Your task to perform on an android device: turn on priority inbox in the gmail app Image 0: 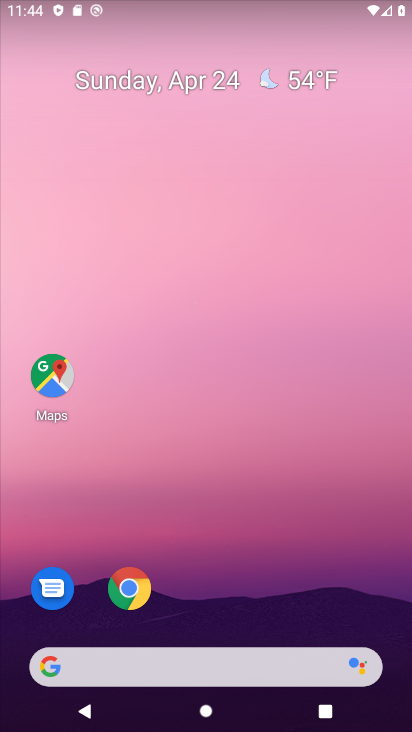
Step 0: drag from (182, 636) to (247, 31)
Your task to perform on an android device: turn on priority inbox in the gmail app Image 1: 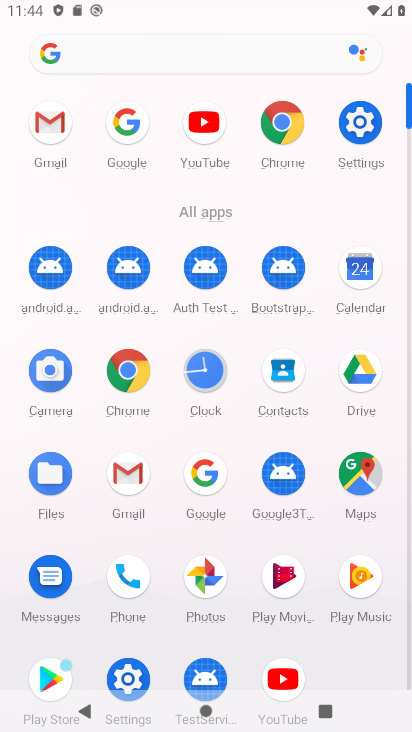
Step 1: click (127, 499)
Your task to perform on an android device: turn on priority inbox in the gmail app Image 2: 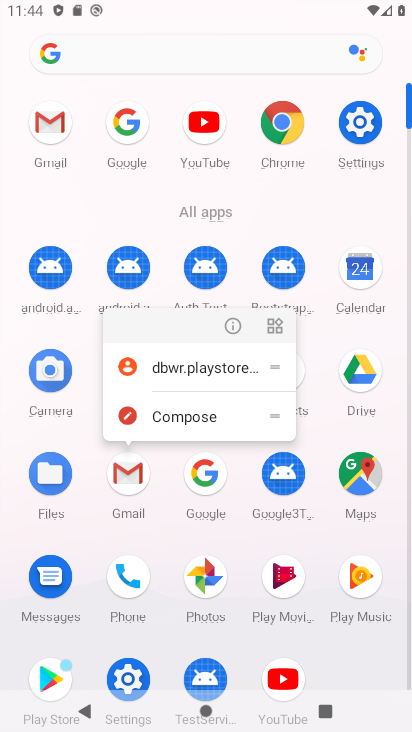
Step 2: click (137, 479)
Your task to perform on an android device: turn on priority inbox in the gmail app Image 3: 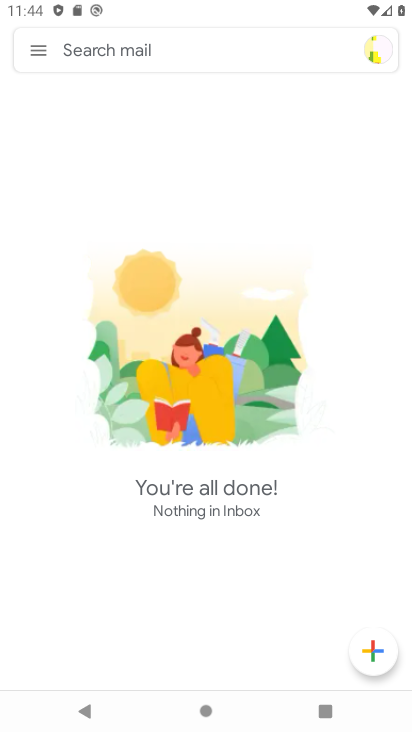
Step 3: click (47, 40)
Your task to perform on an android device: turn on priority inbox in the gmail app Image 4: 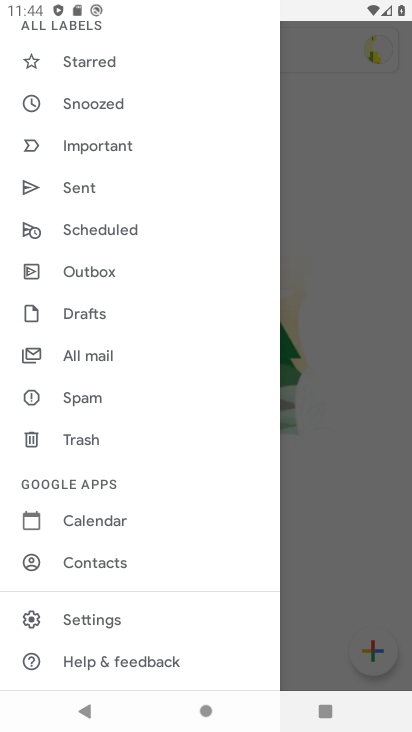
Step 4: drag from (97, 496) to (76, 193)
Your task to perform on an android device: turn on priority inbox in the gmail app Image 5: 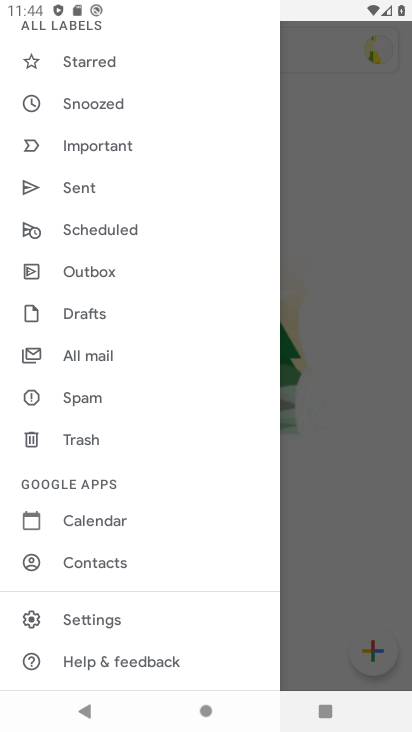
Step 5: click (72, 621)
Your task to perform on an android device: turn on priority inbox in the gmail app Image 6: 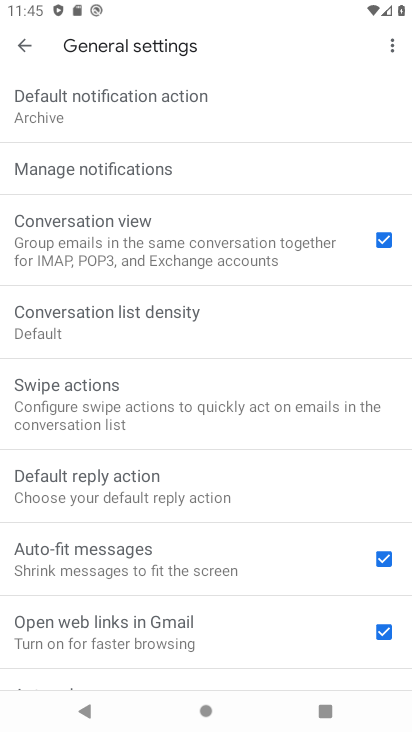
Step 6: drag from (238, 554) to (221, 361)
Your task to perform on an android device: turn on priority inbox in the gmail app Image 7: 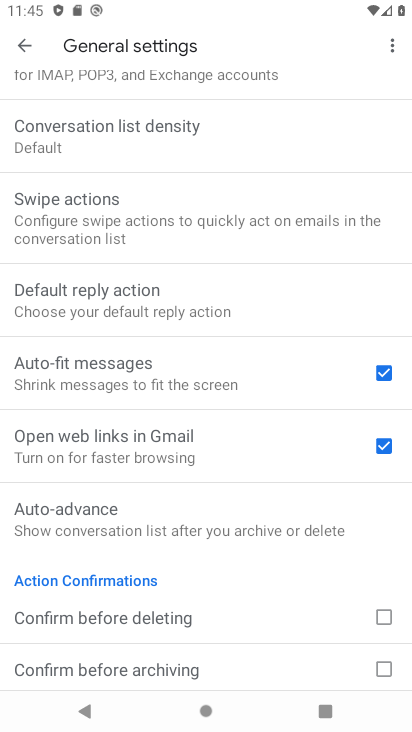
Step 7: click (19, 55)
Your task to perform on an android device: turn on priority inbox in the gmail app Image 8: 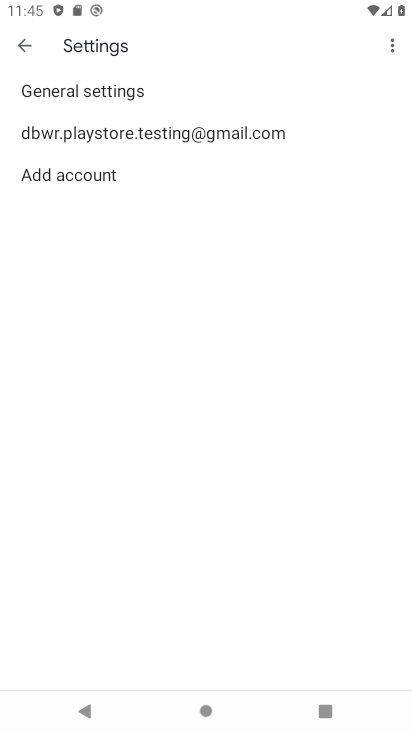
Step 8: click (65, 128)
Your task to perform on an android device: turn on priority inbox in the gmail app Image 9: 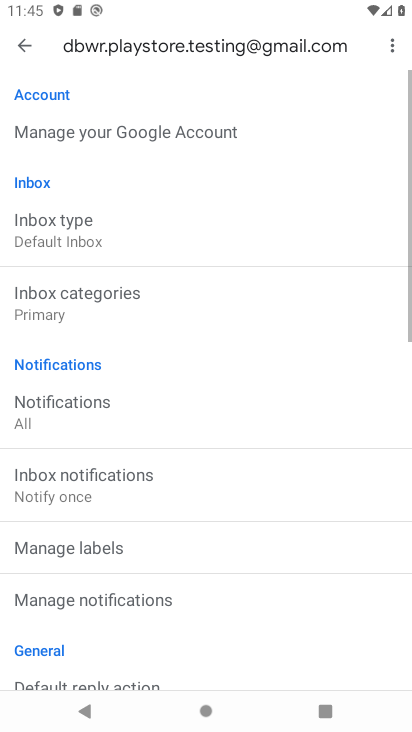
Step 9: click (73, 228)
Your task to perform on an android device: turn on priority inbox in the gmail app Image 10: 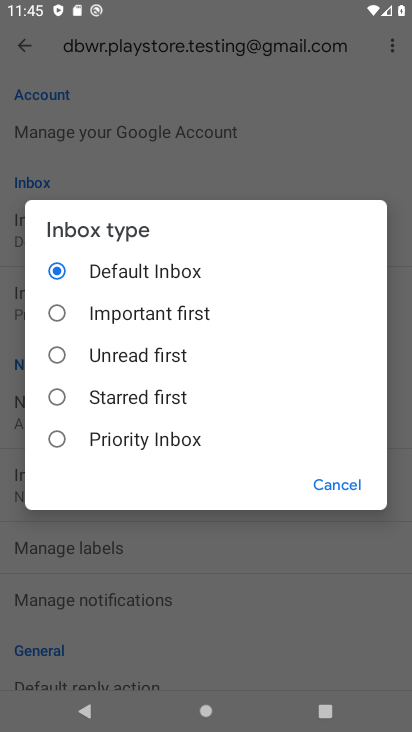
Step 10: click (53, 438)
Your task to perform on an android device: turn on priority inbox in the gmail app Image 11: 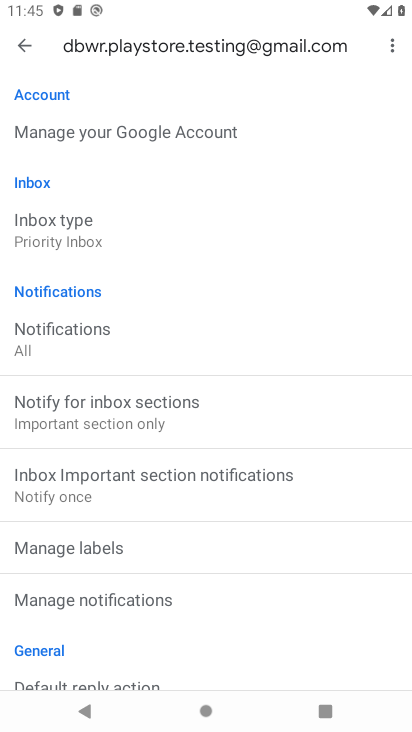
Step 11: task complete